Your task to perform on an android device: Open accessibility settings Image 0: 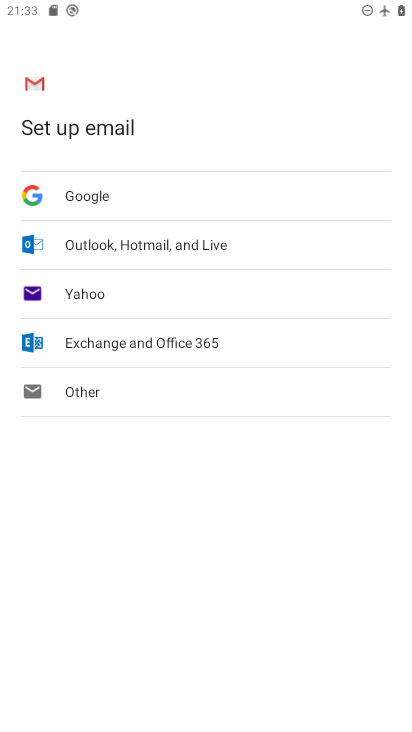
Step 0: press home button
Your task to perform on an android device: Open accessibility settings Image 1: 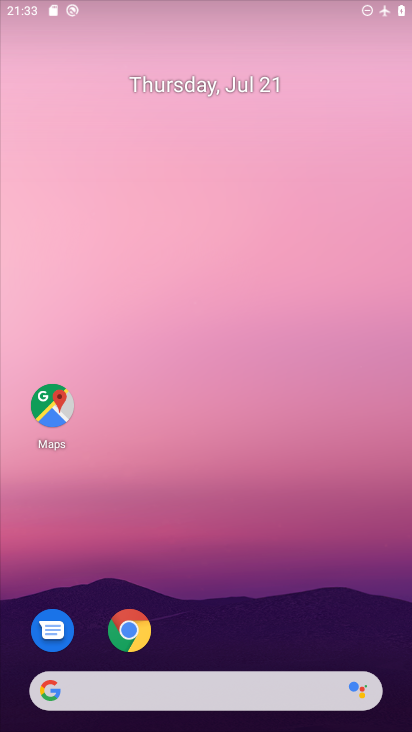
Step 1: drag from (302, 618) to (233, 209)
Your task to perform on an android device: Open accessibility settings Image 2: 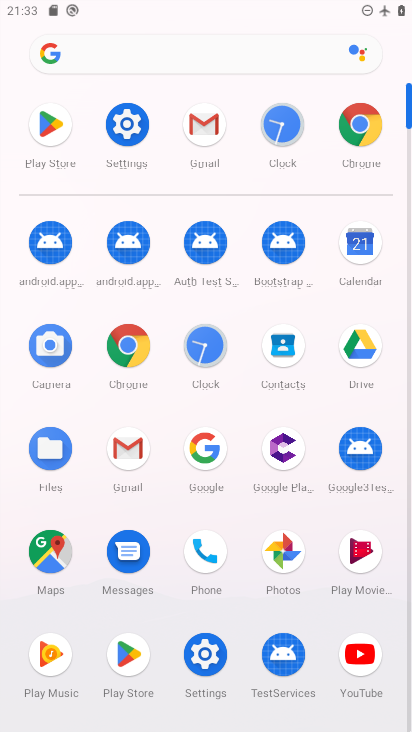
Step 2: click (118, 126)
Your task to perform on an android device: Open accessibility settings Image 3: 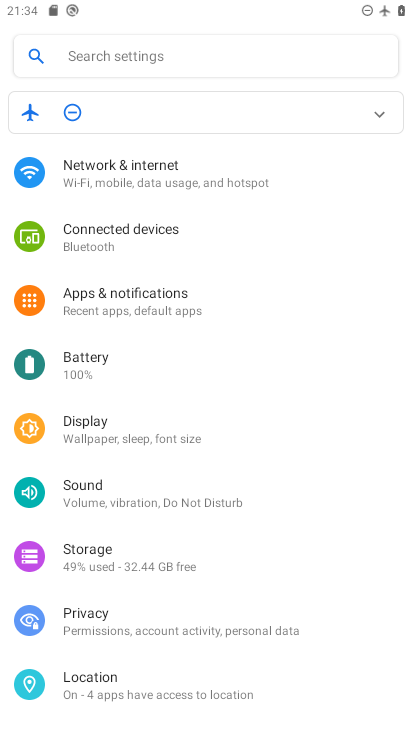
Step 3: click (311, 605)
Your task to perform on an android device: Open accessibility settings Image 4: 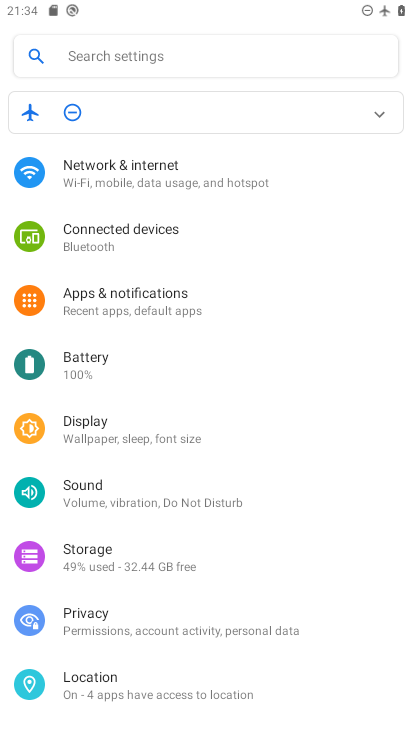
Step 4: click (301, 528)
Your task to perform on an android device: Open accessibility settings Image 5: 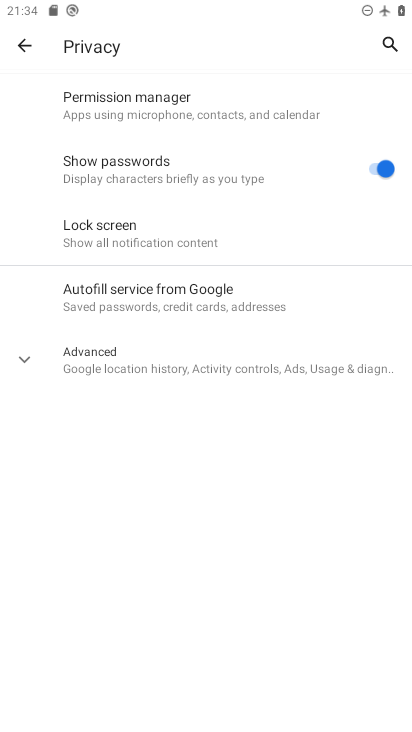
Step 5: click (29, 37)
Your task to perform on an android device: Open accessibility settings Image 6: 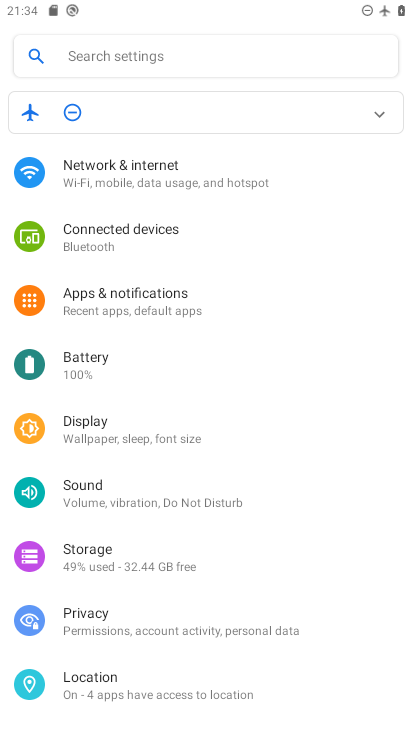
Step 6: drag from (314, 674) to (378, 177)
Your task to perform on an android device: Open accessibility settings Image 7: 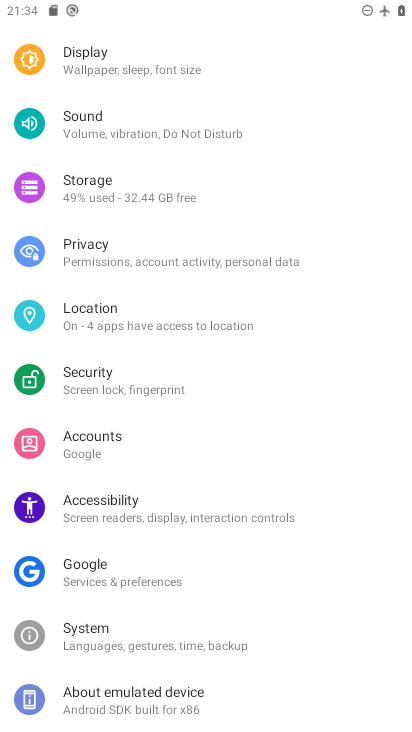
Step 7: click (108, 502)
Your task to perform on an android device: Open accessibility settings Image 8: 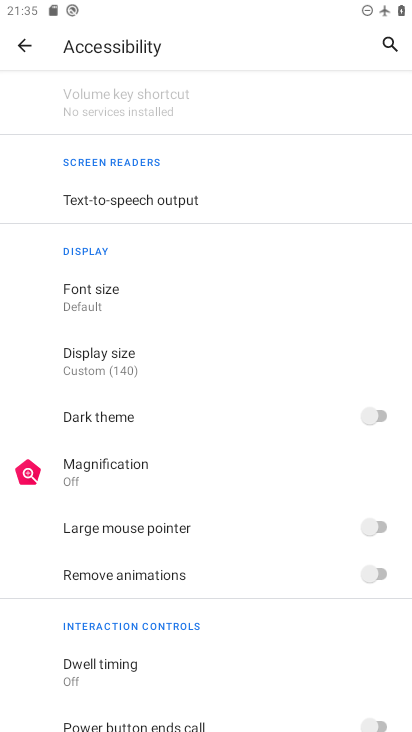
Step 8: task complete